Your task to perform on an android device: Open the stopwatch Image 0: 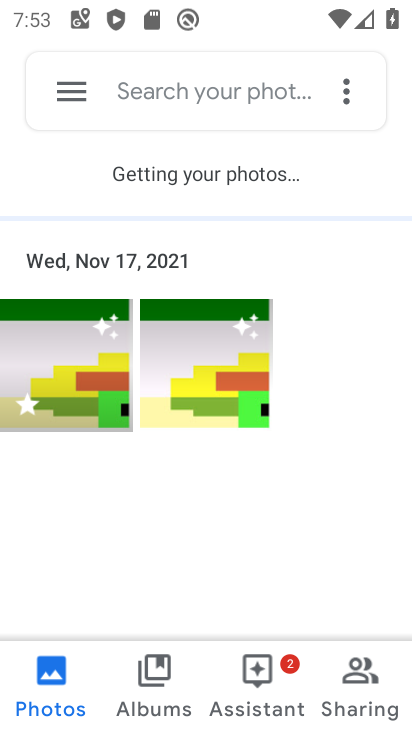
Step 0: press home button
Your task to perform on an android device: Open the stopwatch Image 1: 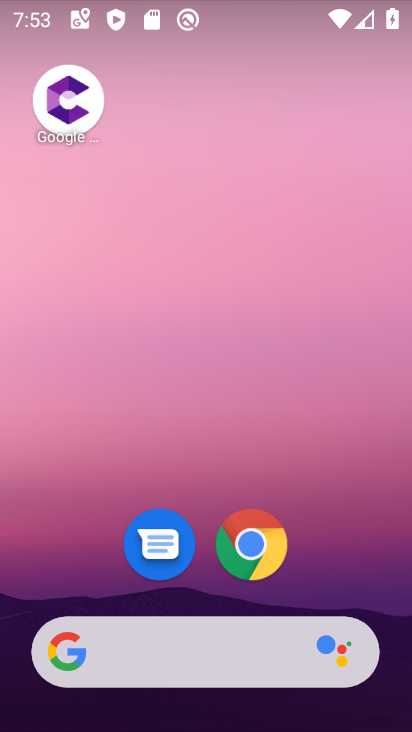
Step 1: drag from (365, 598) to (378, 20)
Your task to perform on an android device: Open the stopwatch Image 2: 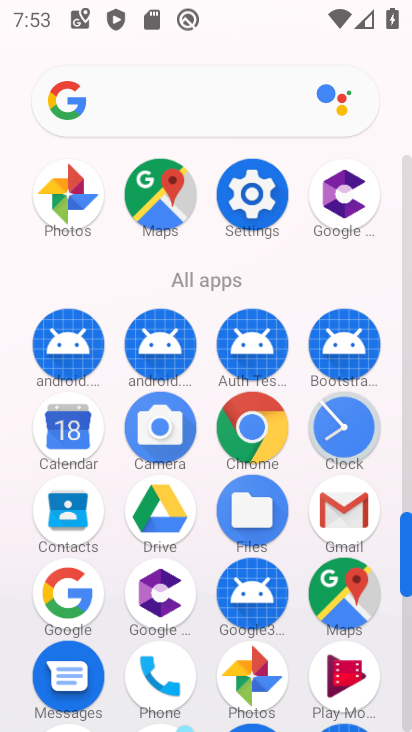
Step 2: click (349, 436)
Your task to perform on an android device: Open the stopwatch Image 3: 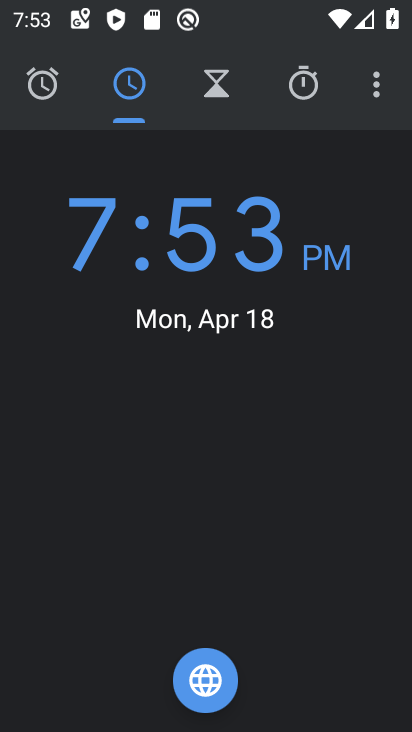
Step 3: click (302, 94)
Your task to perform on an android device: Open the stopwatch Image 4: 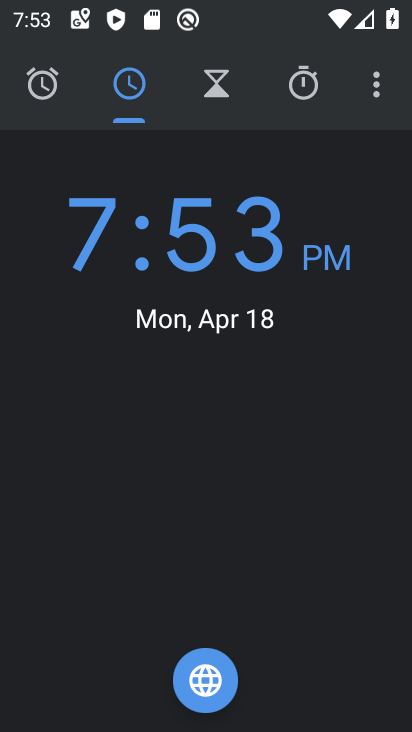
Step 4: click (306, 92)
Your task to perform on an android device: Open the stopwatch Image 5: 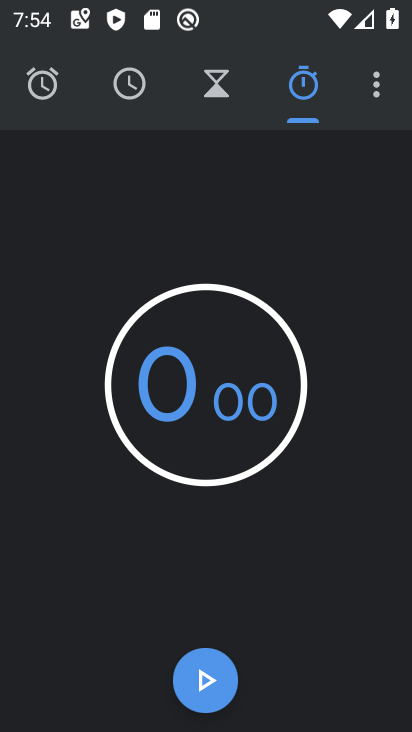
Step 5: task complete